Your task to perform on an android device: Go to eBay Image 0: 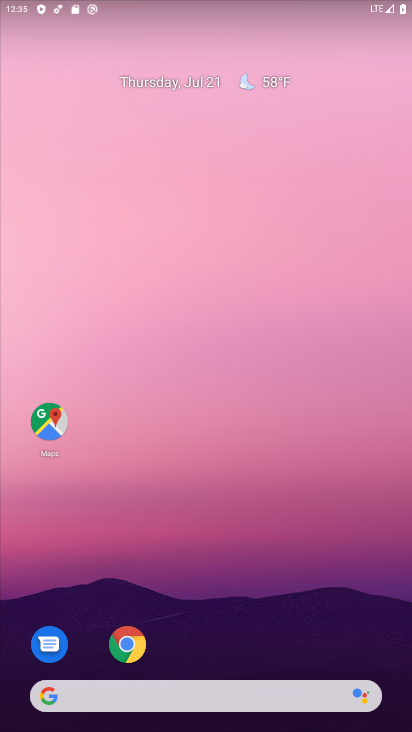
Step 0: drag from (333, 610) to (343, 36)
Your task to perform on an android device: Go to eBay Image 1: 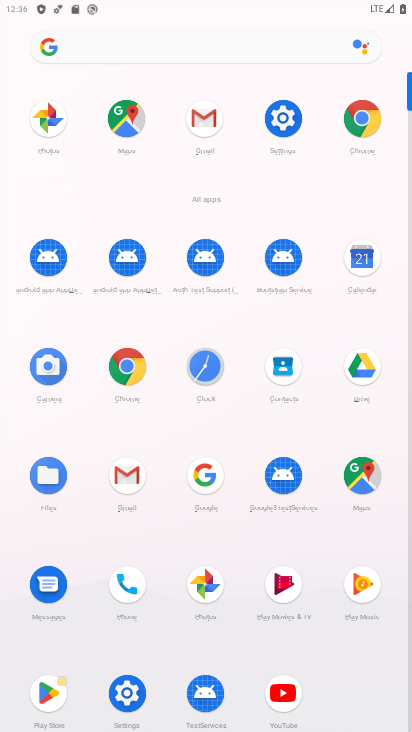
Step 1: click (136, 369)
Your task to perform on an android device: Go to eBay Image 2: 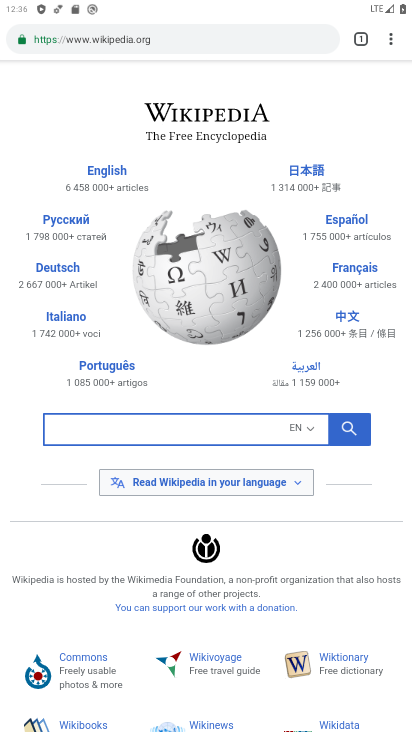
Step 2: click (124, 38)
Your task to perform on an android device: Go to eBay Image 3: 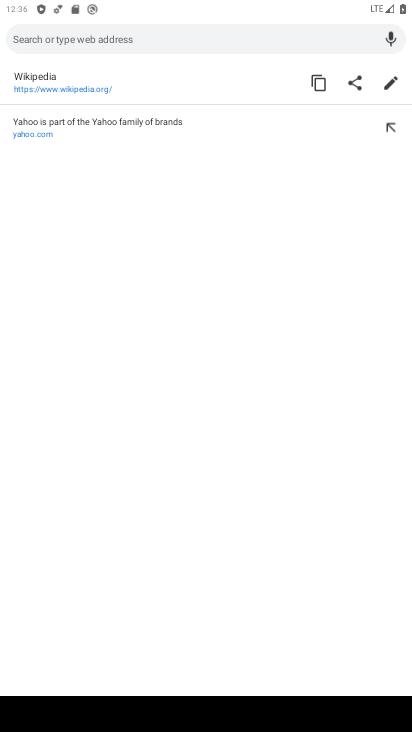
Step 3: type "eaby"
Your task to perform on an android device: Go to eBay Image 4: 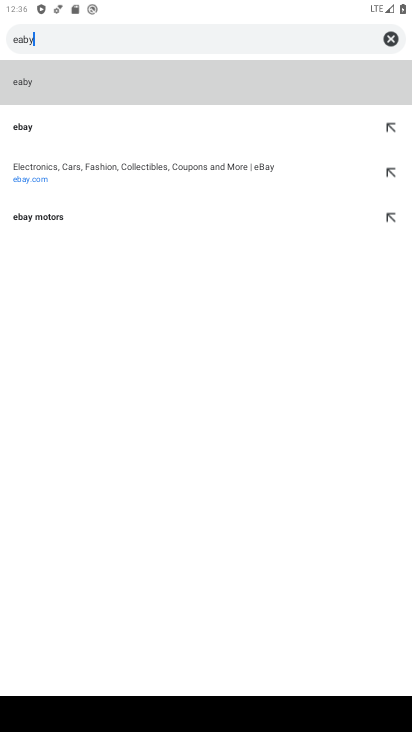
Step 4: click (106, 124)
Your task to perform on an android device: Go to eBay Image 5: 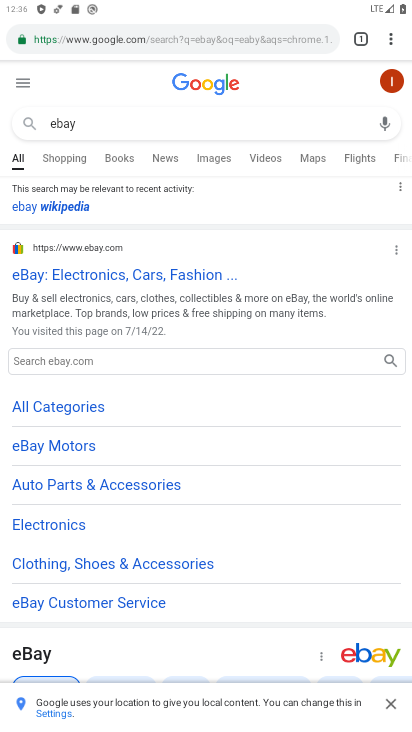
Step 5: task complete